Your task to perform on an android device: Clear all items from cart on costco.com. Add razer kraken to the cart on costco.com, then select checkout. Image 0: 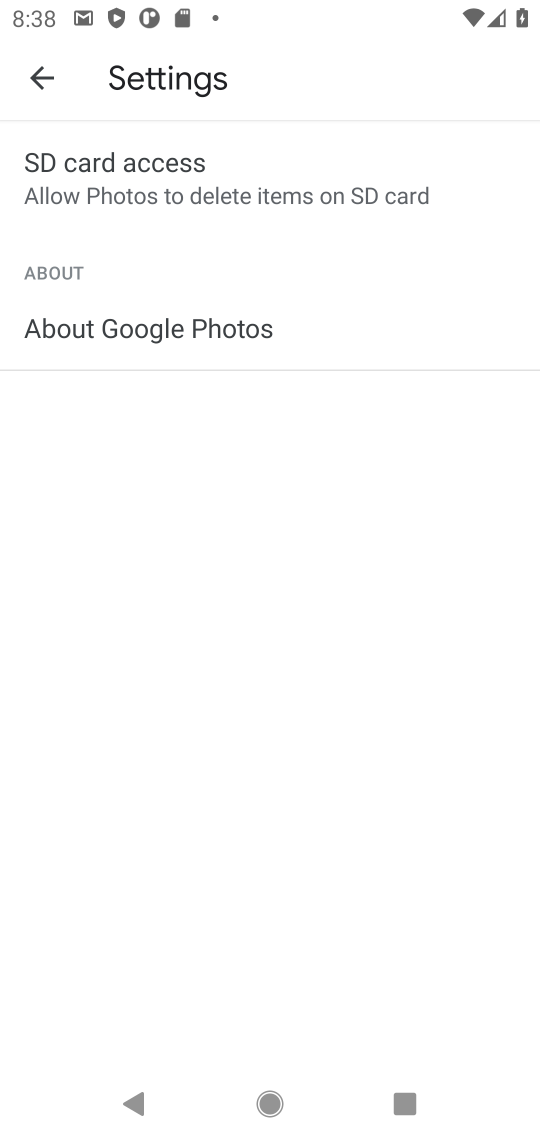
Step 0: press home button
Your task to perform on an android device: Clear all items from cart on costco.com. Add razer kraken to the cart on costco.com, then select checkout. Image 1: 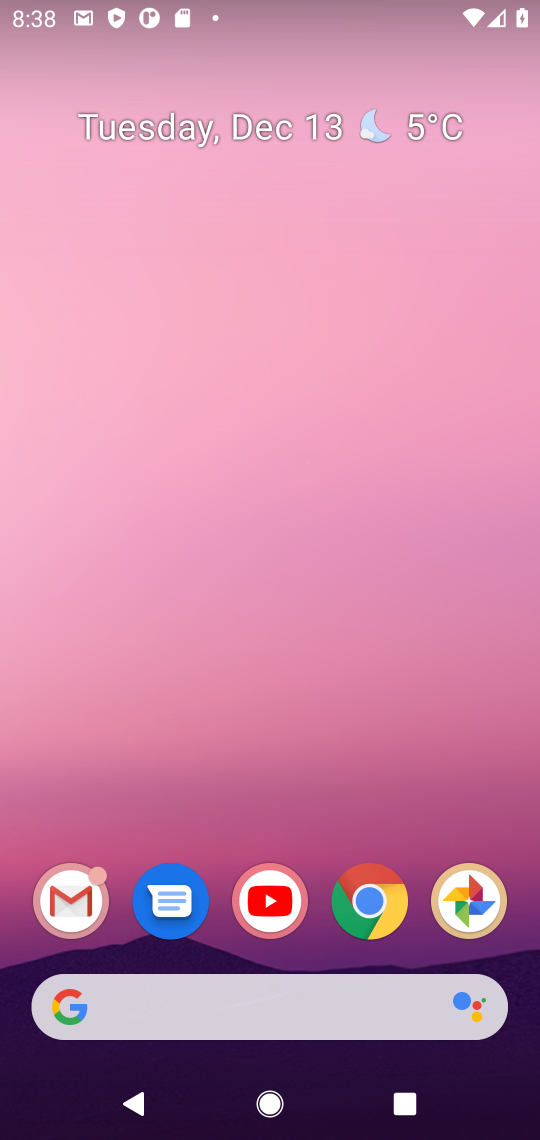
Step 1: click (362, 896)
Your task to perform on an android device: Clear all items from cart on costco.com. Add razer kraken to the cart on costco.com, then select checkout. Image 2: 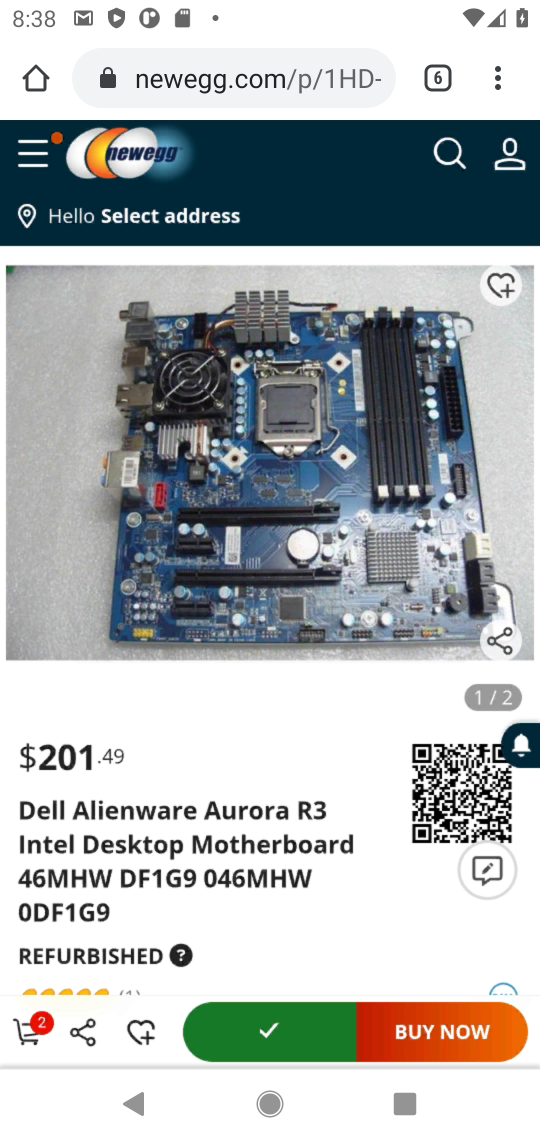
Step 2: click (432, 67)
Your task to perform on an android device: Clear all items from cart on costco.com. Add razer kraken to the cart on costco.com, then select checkout. Image 3: 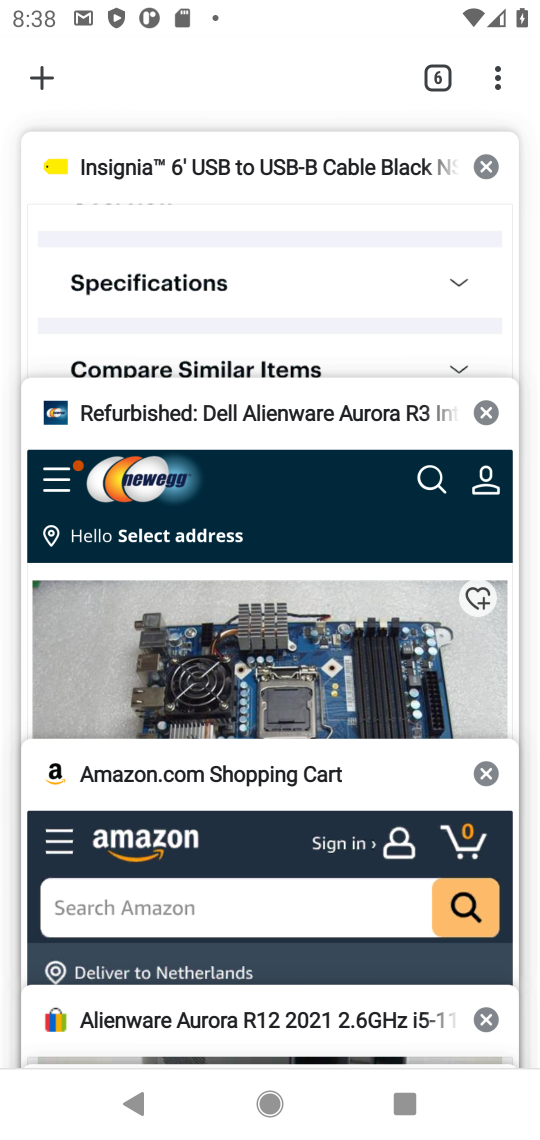
Step 3: click (41, 89)
Your task to perform on an android device: Clear all items from cart on costco.com. Add razer kraken to the cart on costco.com, then select checkout. Image 4: 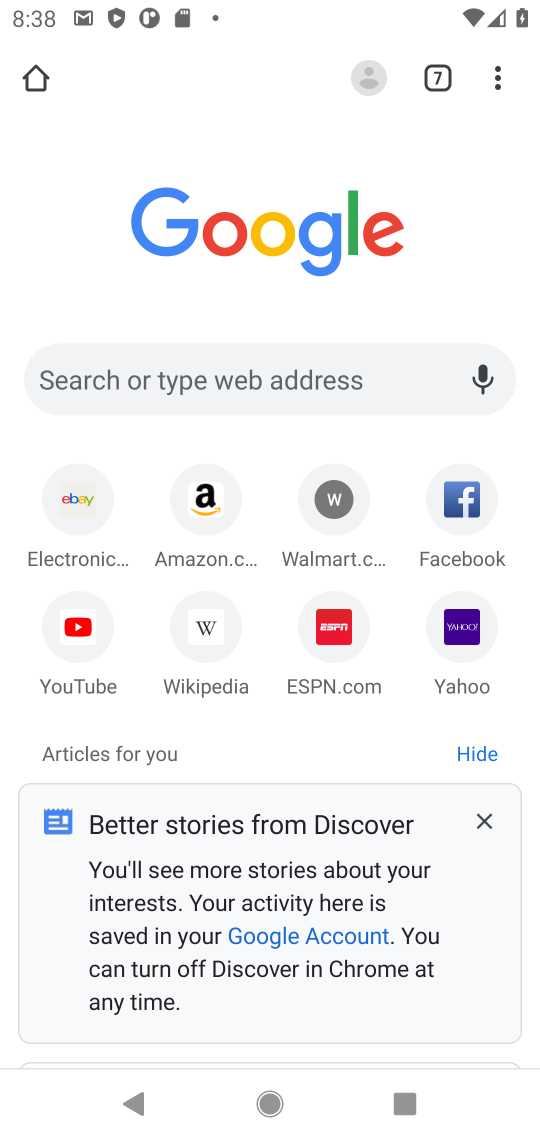
Step 4: click (286, 389)
Your task to perform on an android device: Clear all items from cart on costco.com. Add razer kraken to the cart on costco.com, then select checkout. Image 5: 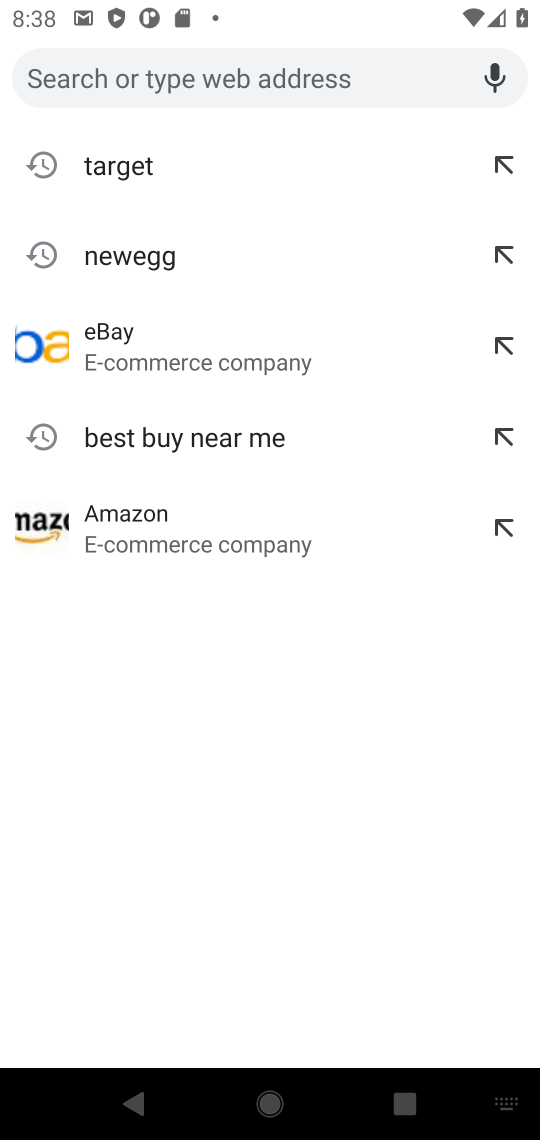
Step 5: type "costco"
Your task to perform on an android device: Clear all items from cart on costco.com. Add razer kraken to the cart on costco.com, then select checkout. Image 6: 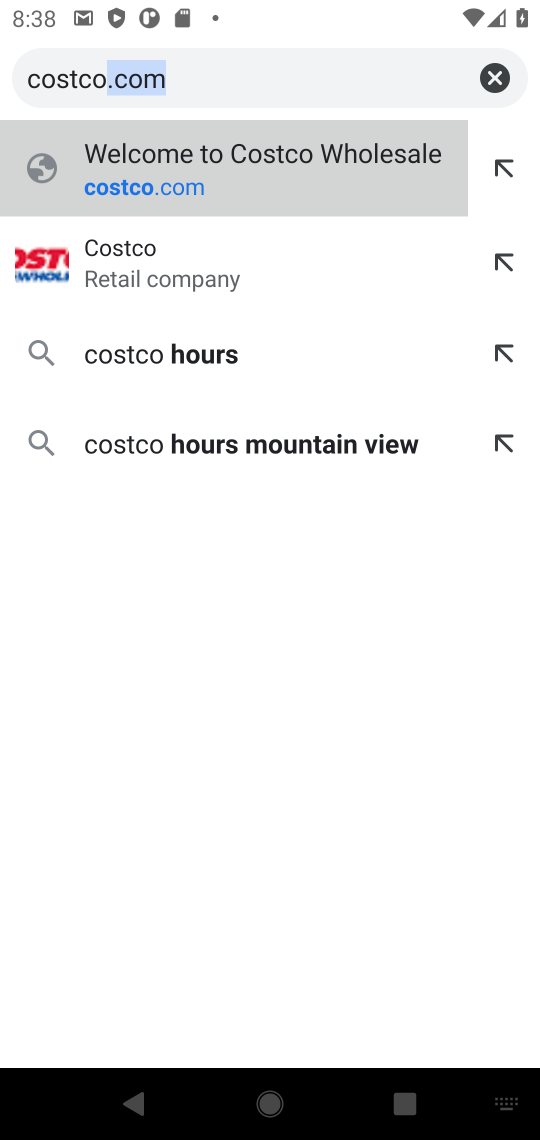
Step 6: click (271, 161)
Your task to perform on an android device: Clear all items from cart on costco.com. Add razer kraken to the cart on costco.com, then select checkout. Image 7: 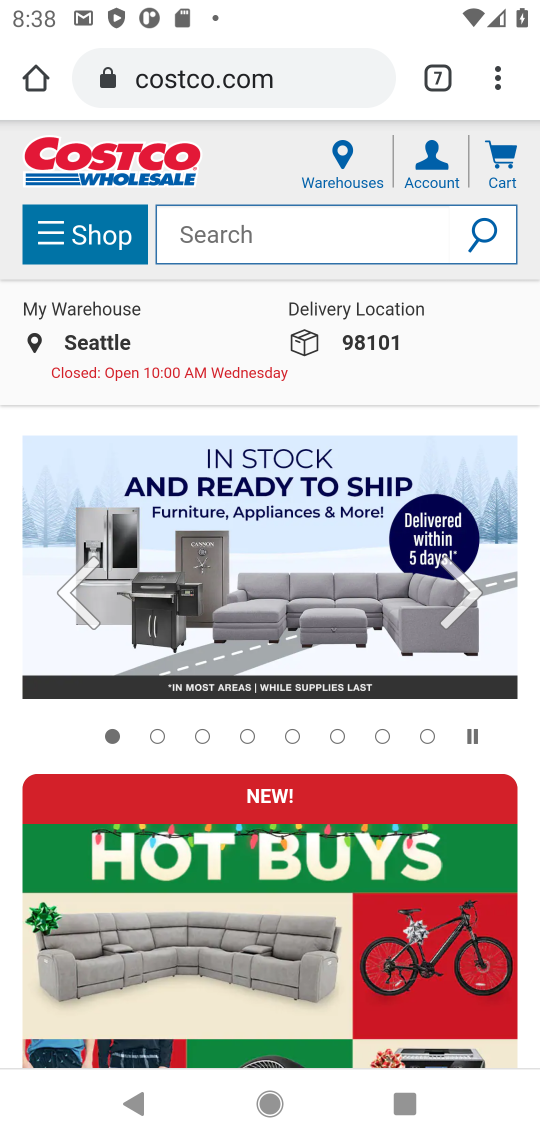
Step 7: click (256, 235)
Your task to perform on an android device: Clear all items from cart on costco.com. Add razer kraken to the cart on costco.com, then select checkout. Image 8: 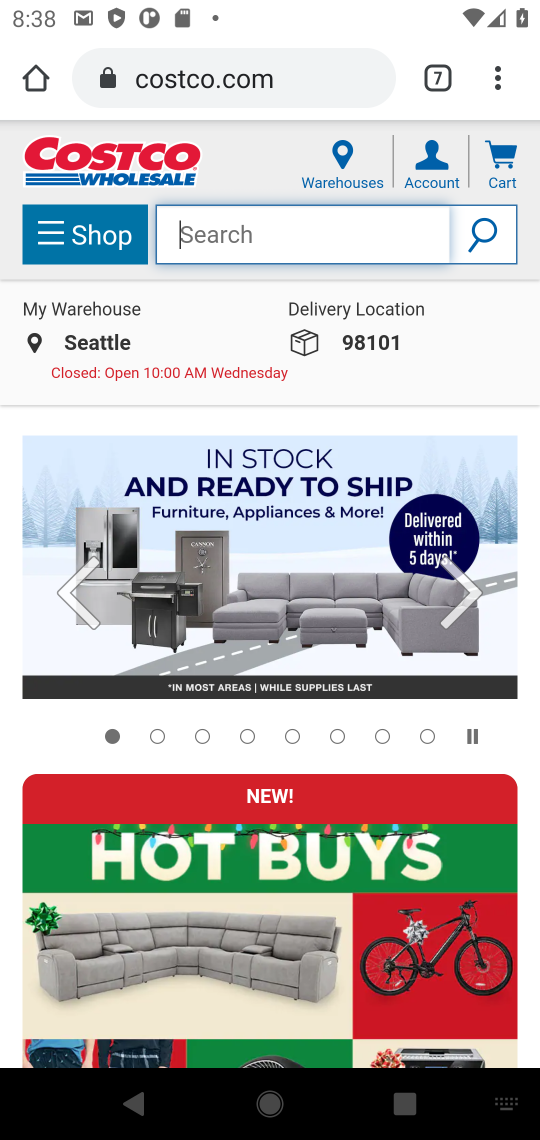
Step 8: type "razer kraken"
Your task to perform on an android device: Clear all items from cart on costco.com. Add razer kraken to the cart on costco.com, then select checkout. Image 9: 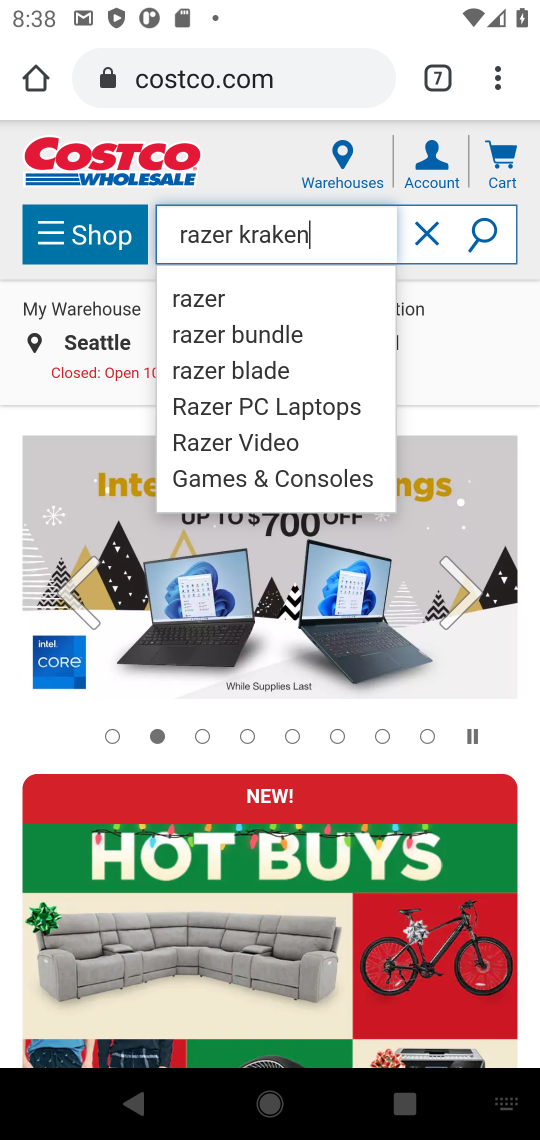
Step 9: click (483, 225)
Your task to perform on an android device: Clear all items from cart on costco.com. Add razer kraken to the cart on costco.com, then select checkout. Image 10: 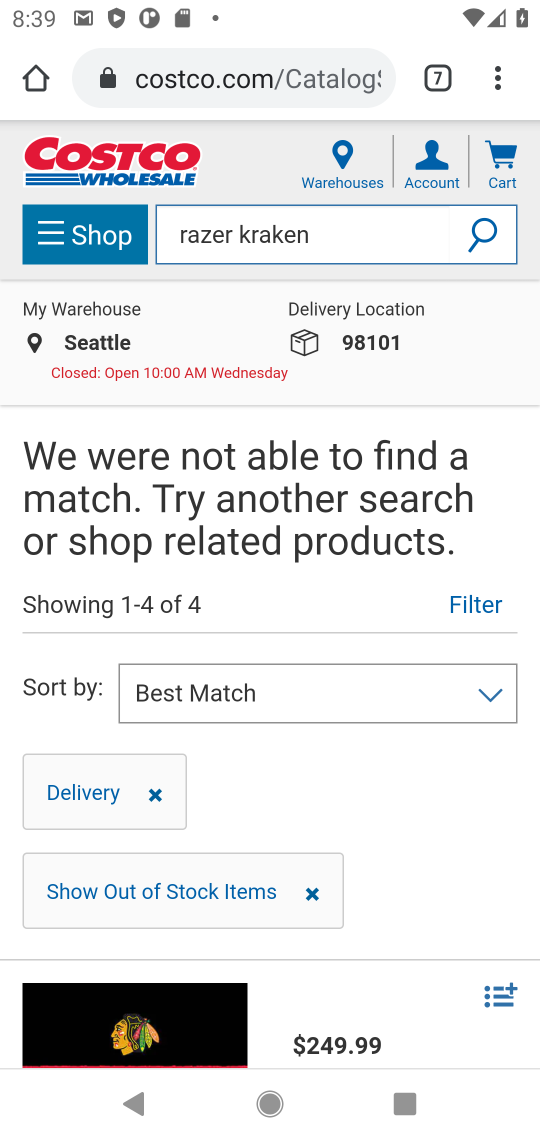
Step 10: task complete